Your task to perform on an android device: Do I have any events this weekend? Image 0: 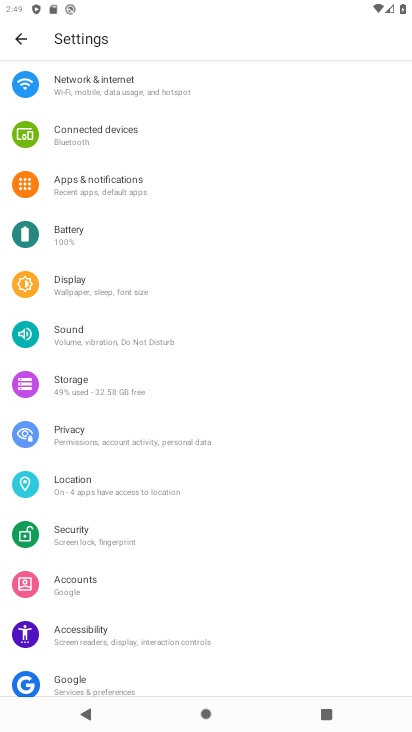
Step 0: press home button
Your task to perform on an android device: Do I have any events this weekend? Image 1: 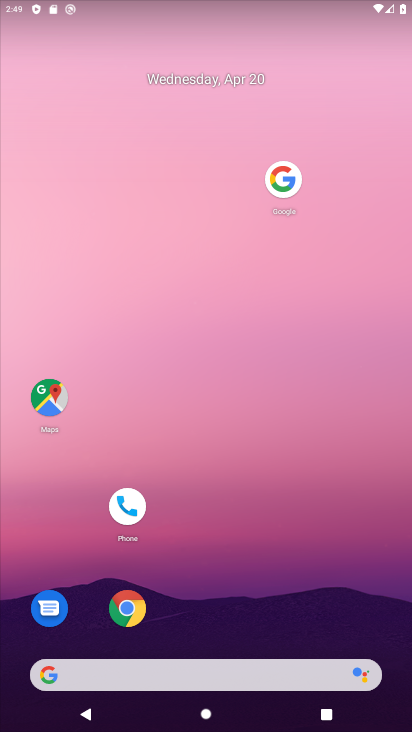
Step 1: drag from (285, 615) to (346, 207)
Your task to perform on an android device: Do I have any events this weekend? Image 2: 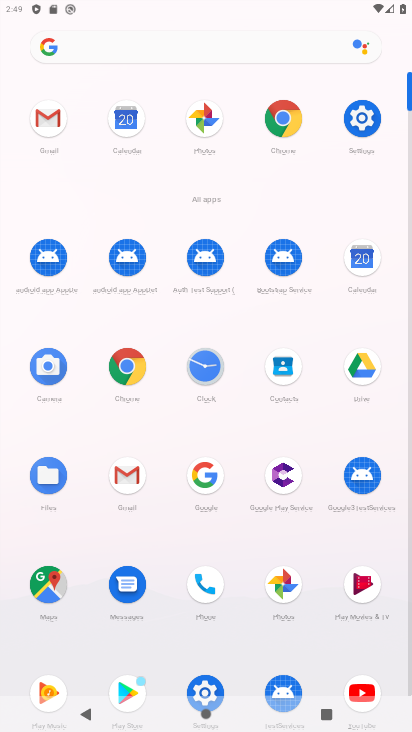
Step 2: click (353, 256)
Your task to perform on an android device: Do I have any events this weekend? Image 3: 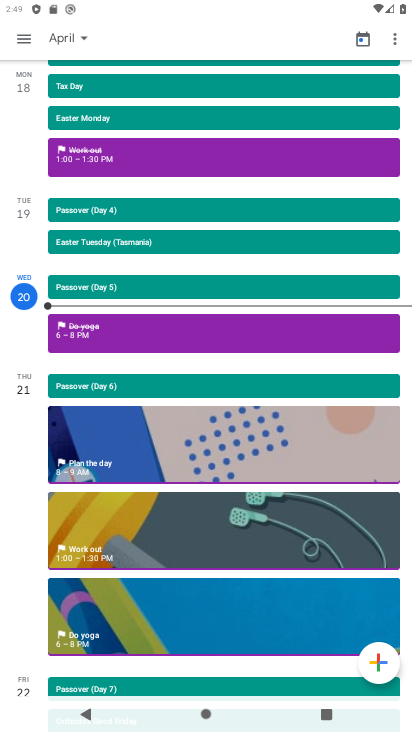
Step 3: task complete